Your task to perform on an android device: open app "Etsy: Buy & Sell Unique Items" (install if not already installed) Image 0: 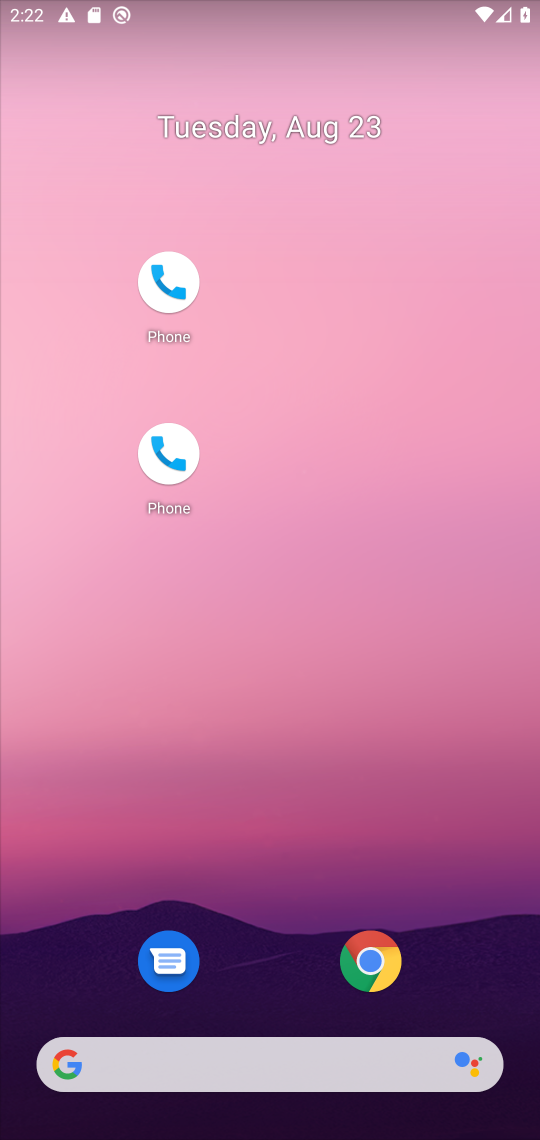
Step 0: drag from (276, 1014) to (269, 125)
Your task to perform on an android device: open app "Etsy: Buy & Sell Unique Items" (install if not already installed) Image 1: 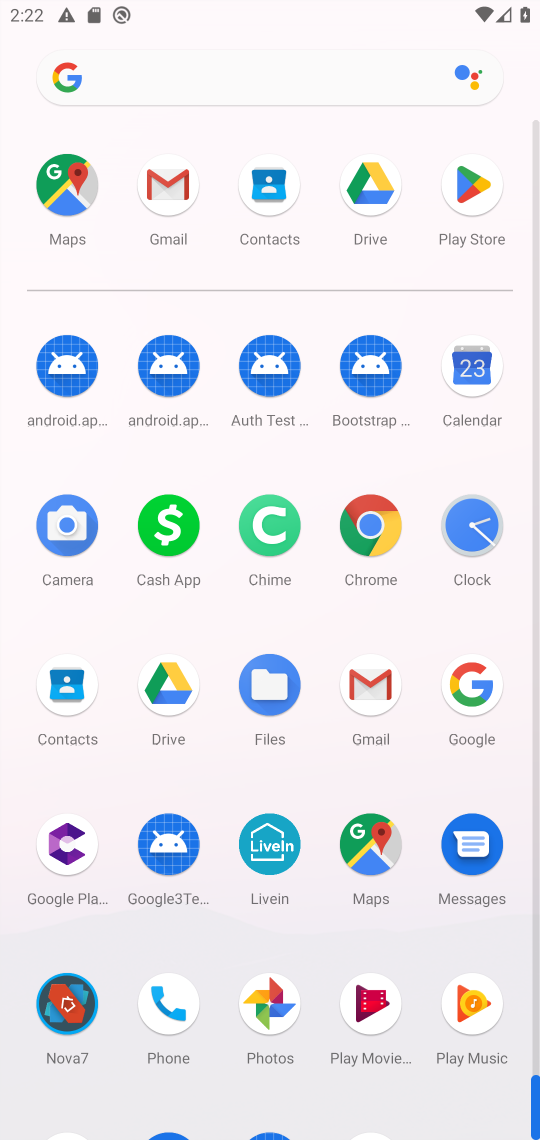
Step 1: click (463, 199)
Your task to perform on an android device: open app "Etsy: Buy & Sell Unique Items" (install if not already installed) Image 2: 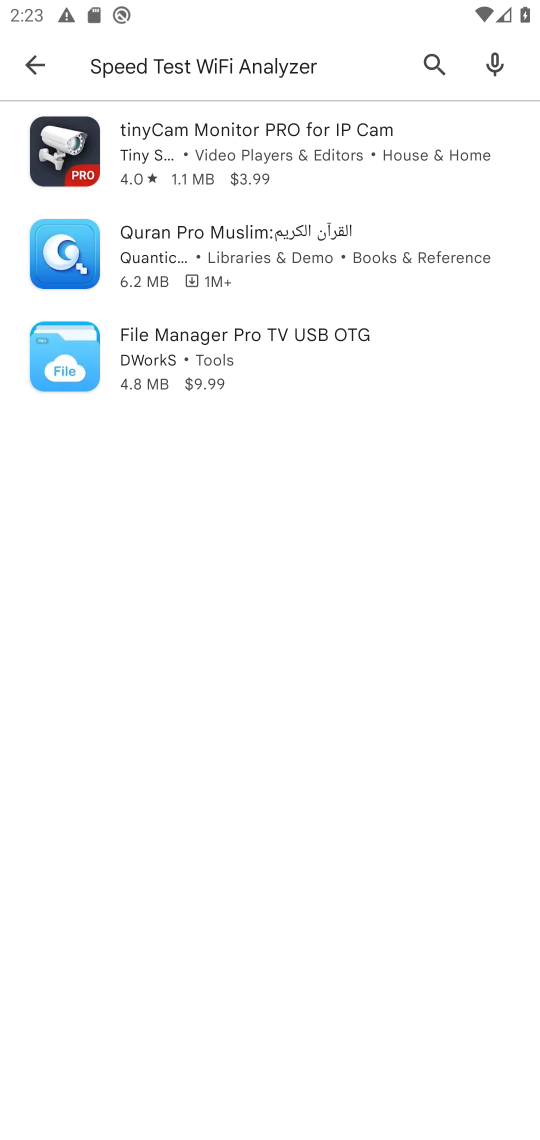
Step 2: task complete